Your task to perform on an android device: Open location settings Image 0: 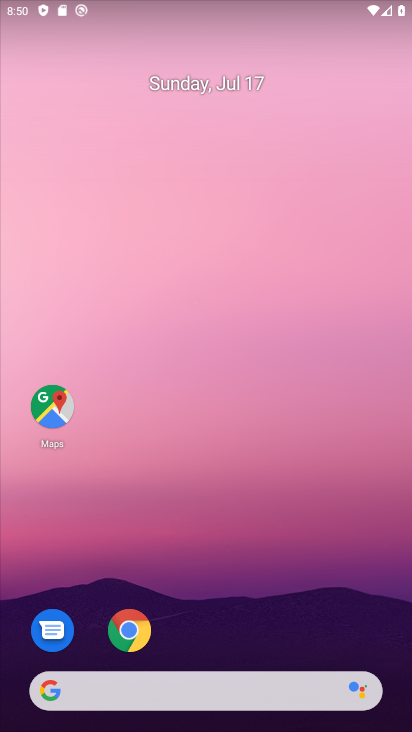
Step 0: drag from (294, 641) to (260, 285)
Your task to perform on an android device: Open location settings Image 1: 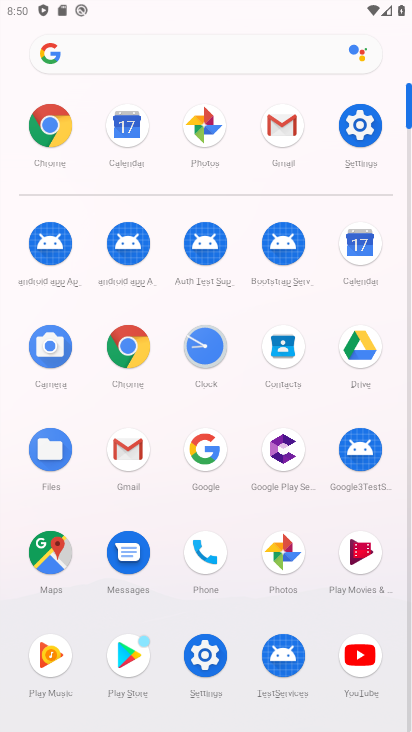
Step 1: click (351, 133)
Your task to perform on an android device: Open location settings Image 2: 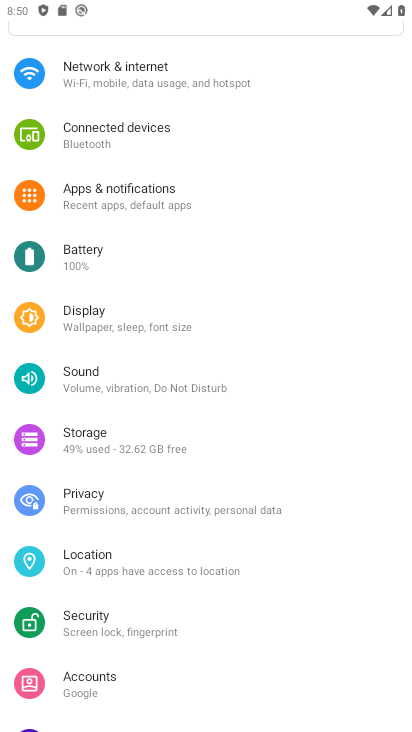
Step 2: click (124, 554)
Your task to perform on an android device: Open location settings Image 3: 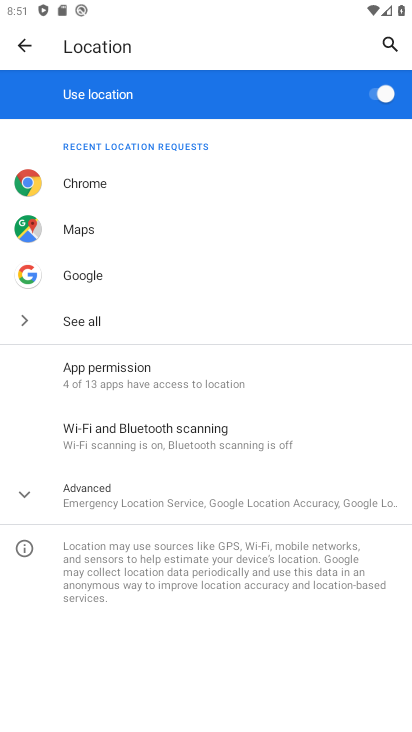
Step 3: click (112, 495)
Your task to perform on an android device: Open location settings Image 4: 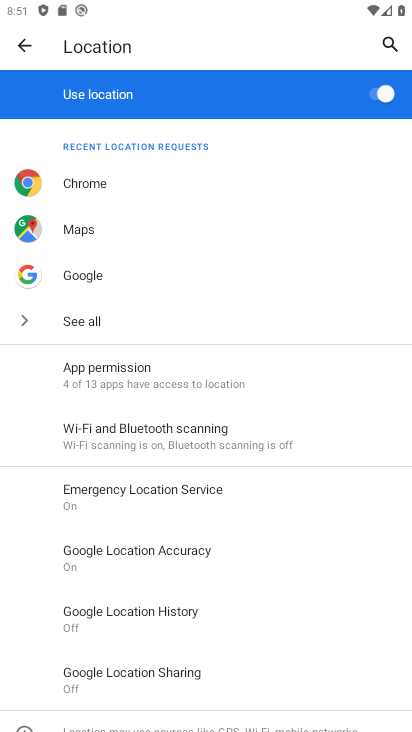
Step 4: click (181, 617)
Your task to perform on an android device: Open location settings Image 5: 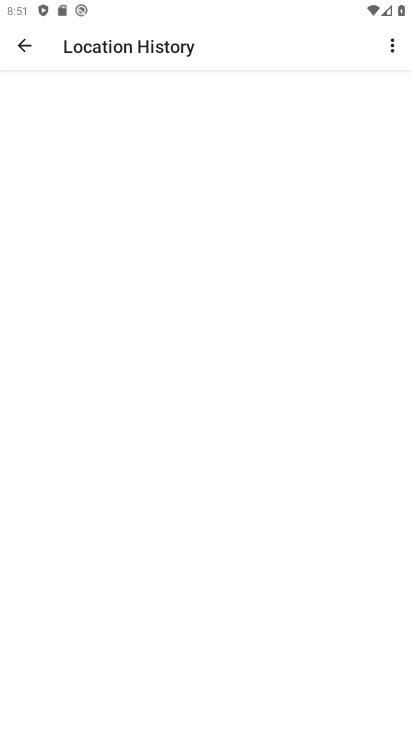
Step 5: task complete